Your task to perform on an android device: Show me popular videos on Youtube Image 0: 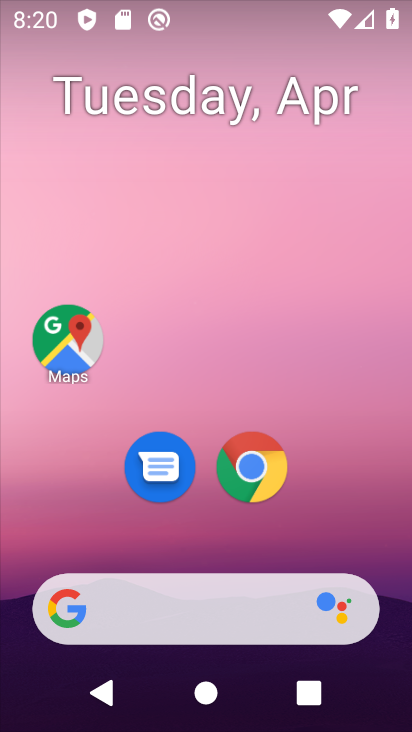
Step 0: press home button
Your task to perform on an android device: Show me popular videos on Youtube Image 1: 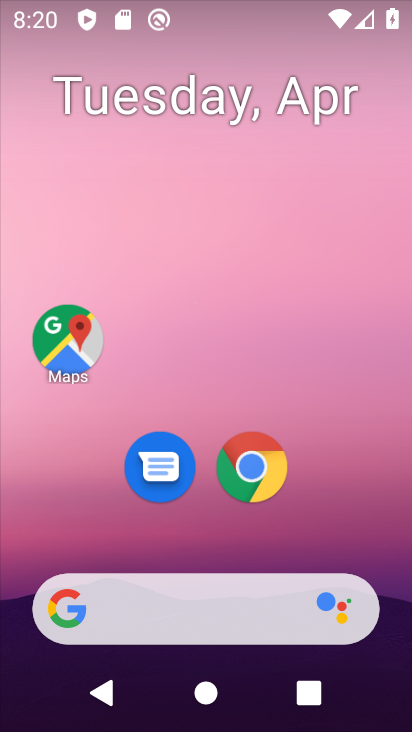
Step 1: drag from (392, 564) to (400, 34)
Your task to perform on an android device: Show me popular videos on Youtube Image 2: 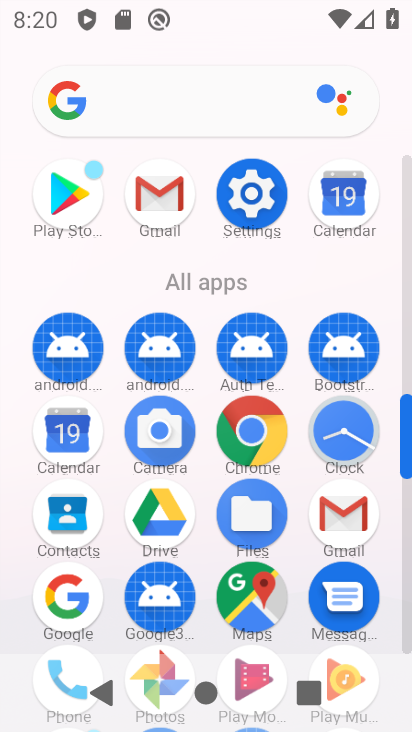
Step 2: click (403, 550)
Your task to perform on an android device: Show me popular videos on Youtube Image 3: 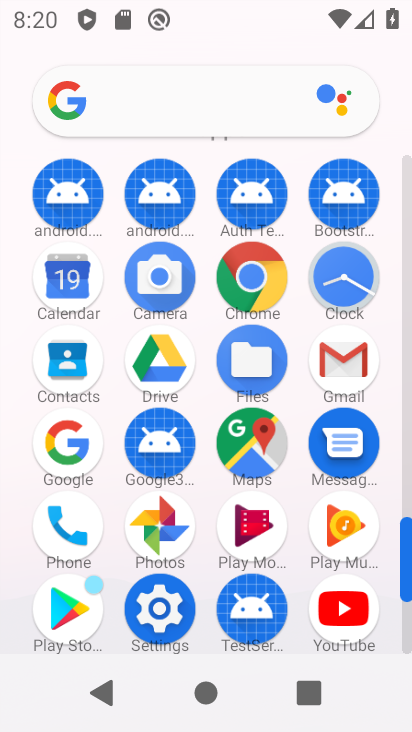
Step 3: click (341, 609)
Your task to perform on an android device: Show me popular videos on Youtube Image 4: 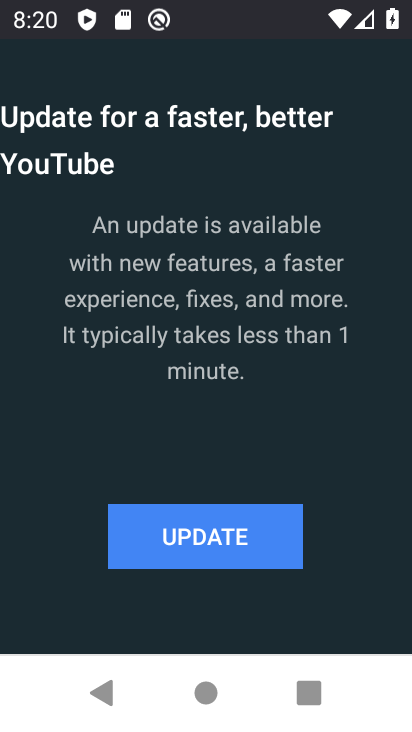
Step 4: click (216, 542)
Your task to perform on an android device: Show me popular videos on Youtube Image 5: 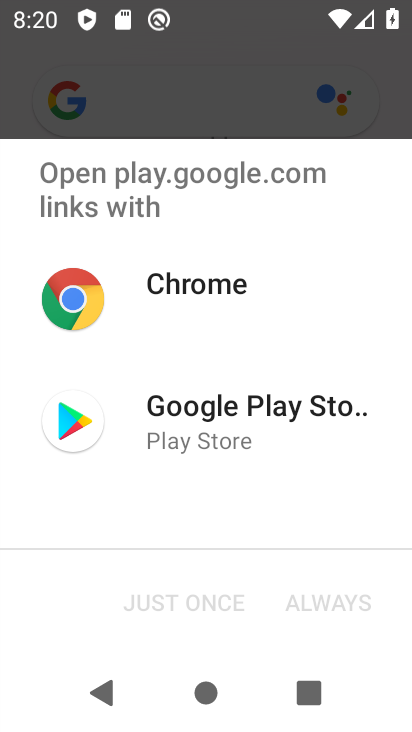
Step 5: click (211, 423)
Your task to perform on an android device: Show me popular videos on Youtube Image 6: 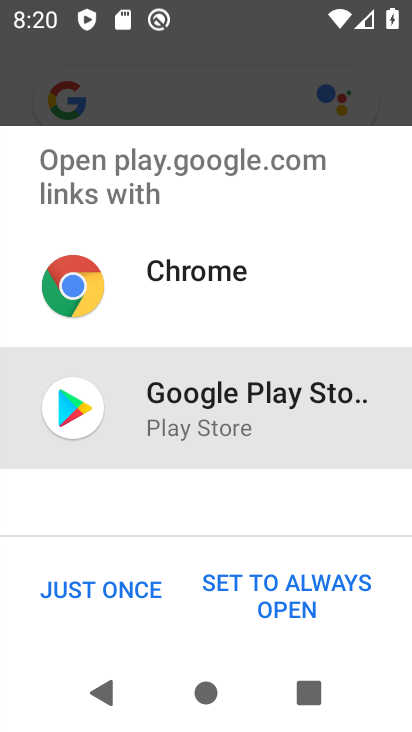
Step 6: click (89, 602)
Your task to perform on an android device: Show me popular videos on Youtube Image 7: 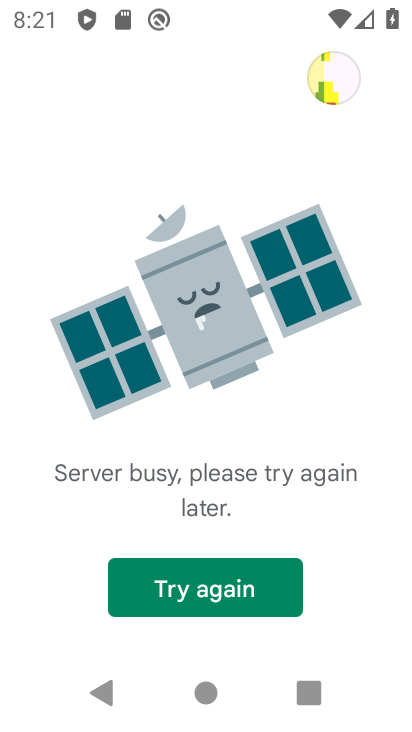
Step 7: task complete